Your task to perform on an android device: empty trash in google photos Image 0: 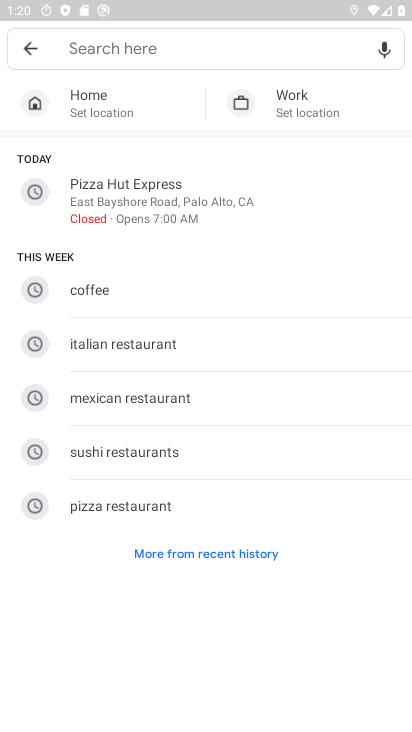
Step 0: press home button
Your task to perform on an android device: empty trash in google photos Image 1: 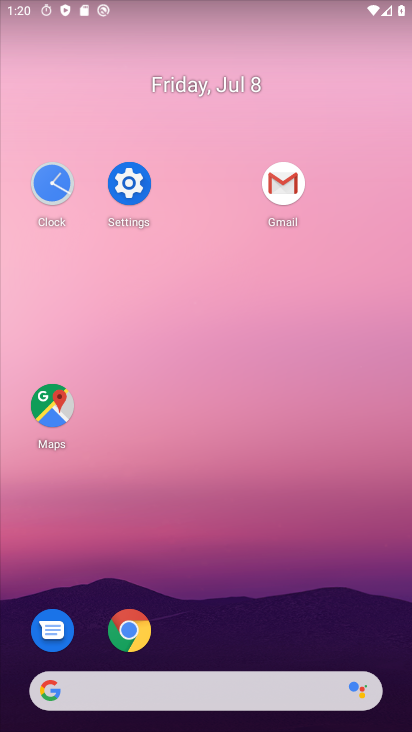
Step 1: drag from (279, 601) to (261, 138)
Your task to perform on an android device: empty trash in google photos Image 2: 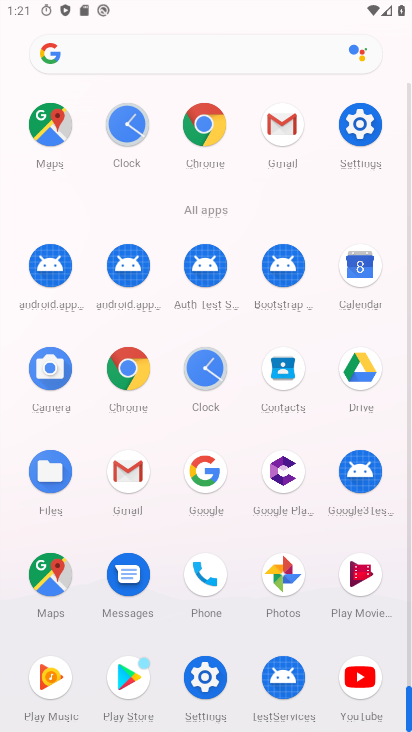
Step 2: drag from (278, 581) to (163, 305)
Your task to perform on an android device: empty trash in google photos Image 3: 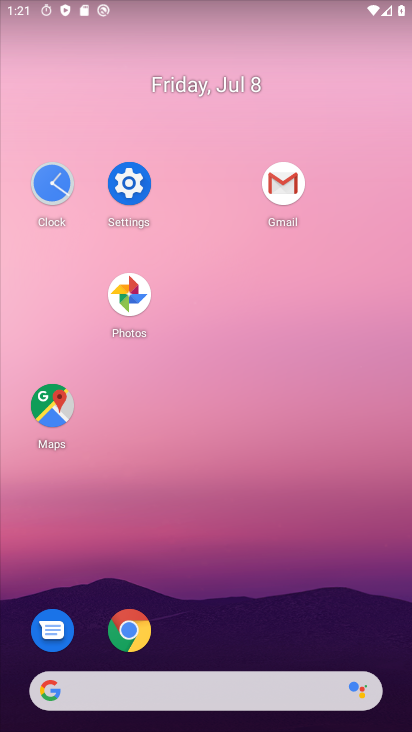
Step 3: click (124, 297)
Your task to perform on an android device: empty trash in google photos Image 4: 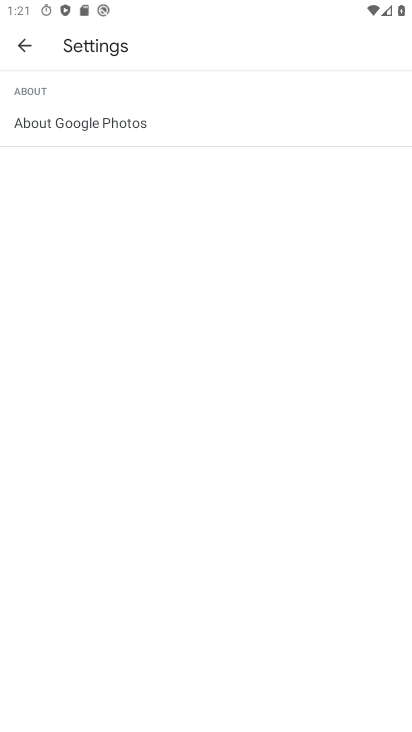
Step 4: click (19, 47)
Your task to perform on an android device: empty trash in google photos Image 5: 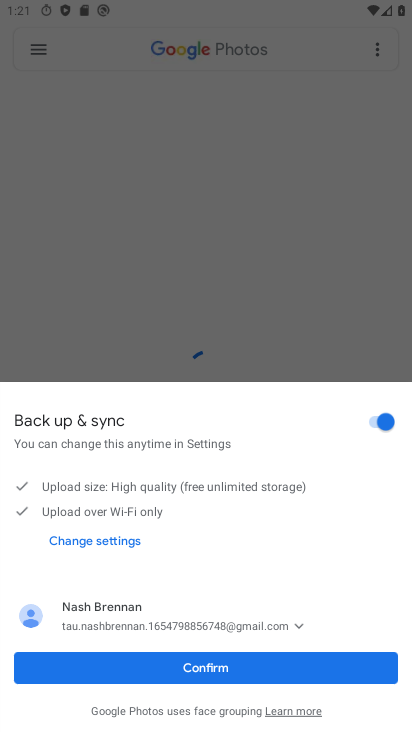
Step 5: click (336, 671)
Your task to perform on an android device: empty trash in google photos Image 6: 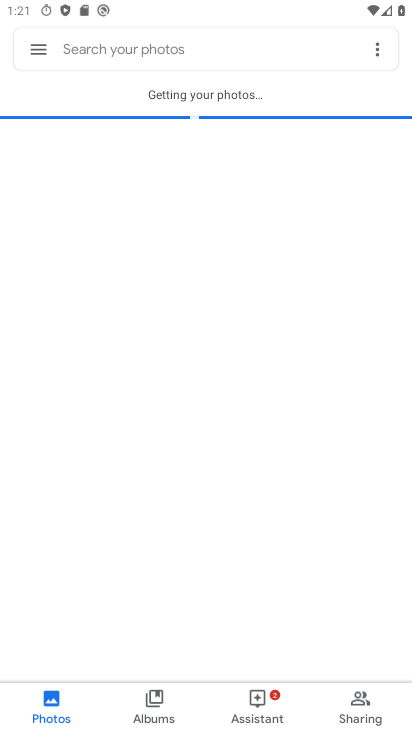
Step 6: click (39, 51)
Your task to perform on an android device: empty trash in google photos Image 7: 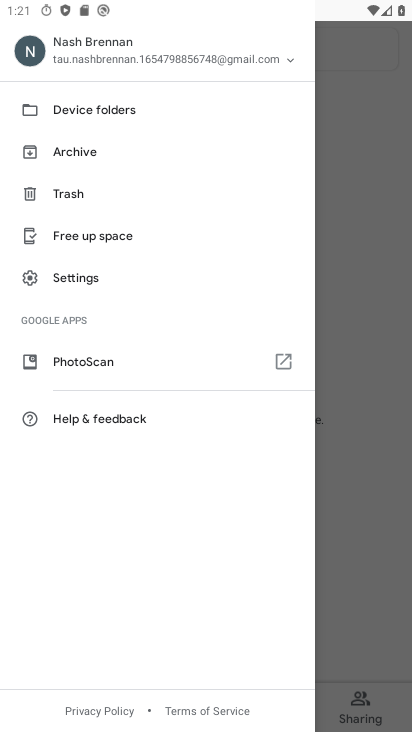
Step 7: click (87, 197)
Your task to perform on an android device: empty trash in google photos Image 8: 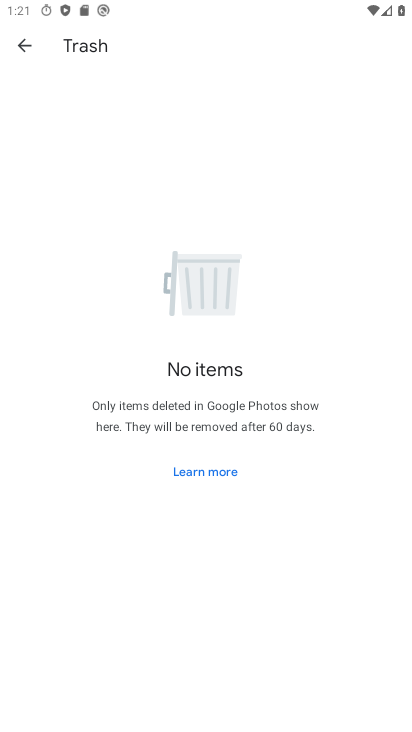
Step 8: task complete